Your task to perform on an android device: empty trash in the gmail app Image 0: 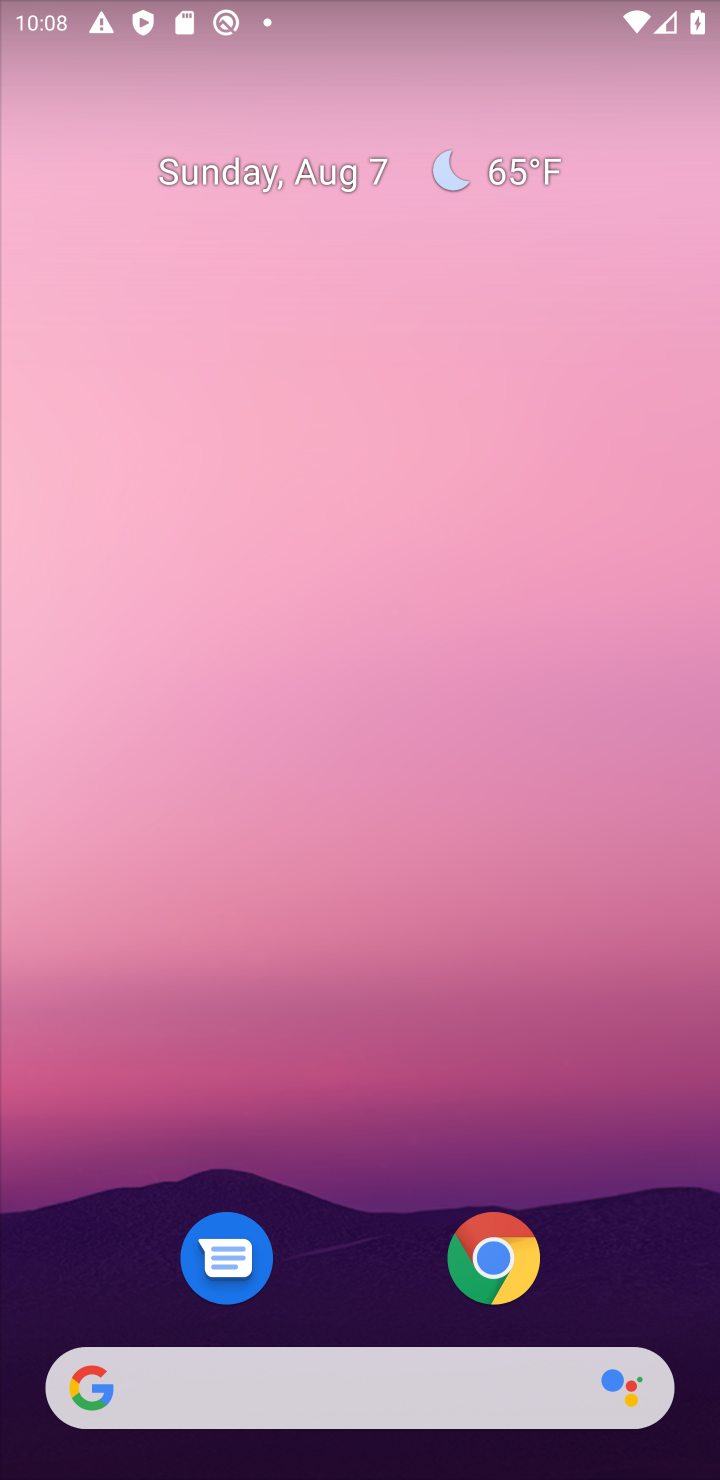
Step 0: drag from (346, 1257) to (229, 0)
Your task to perform on an android device: empty trash in the gmail app Image 1: 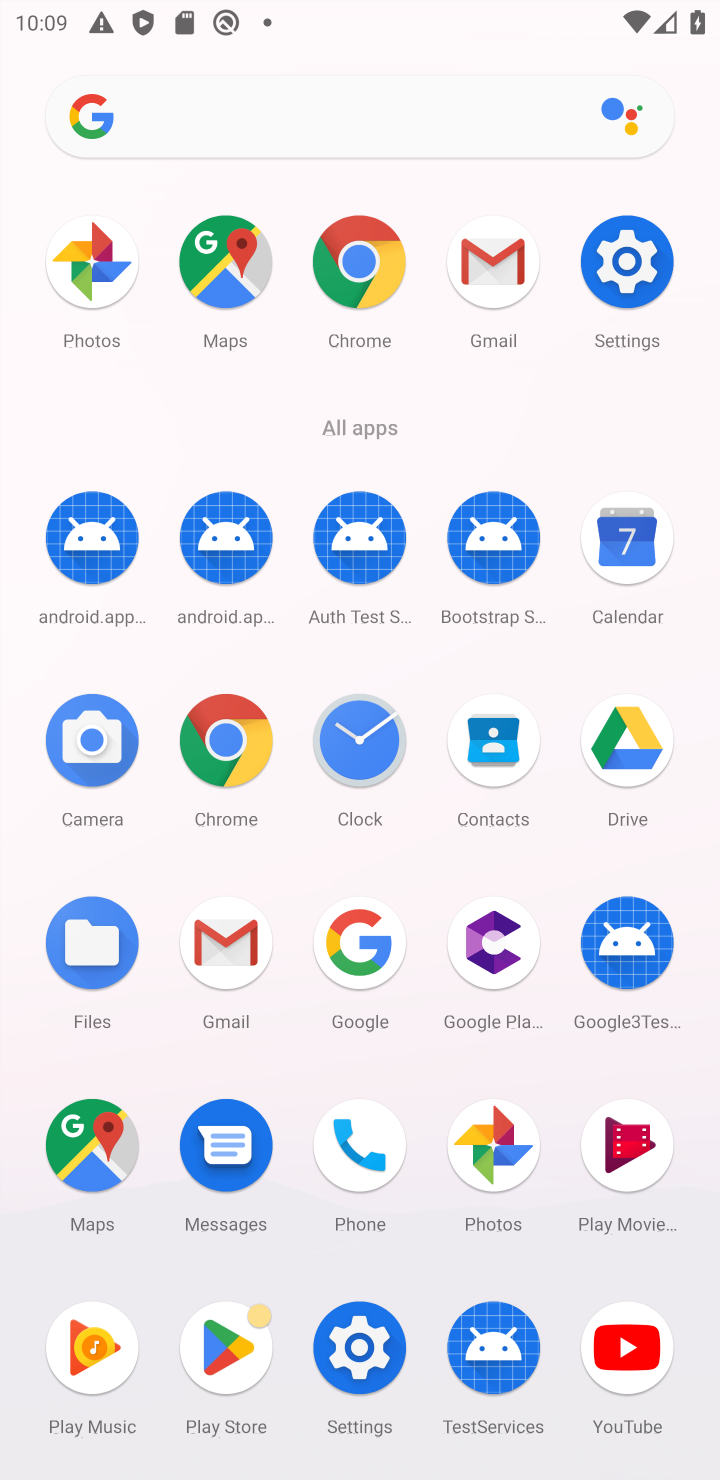
Step 1: click (254, 962)
Your task to perform on an android device: empty trash in the gmail app Image 2: 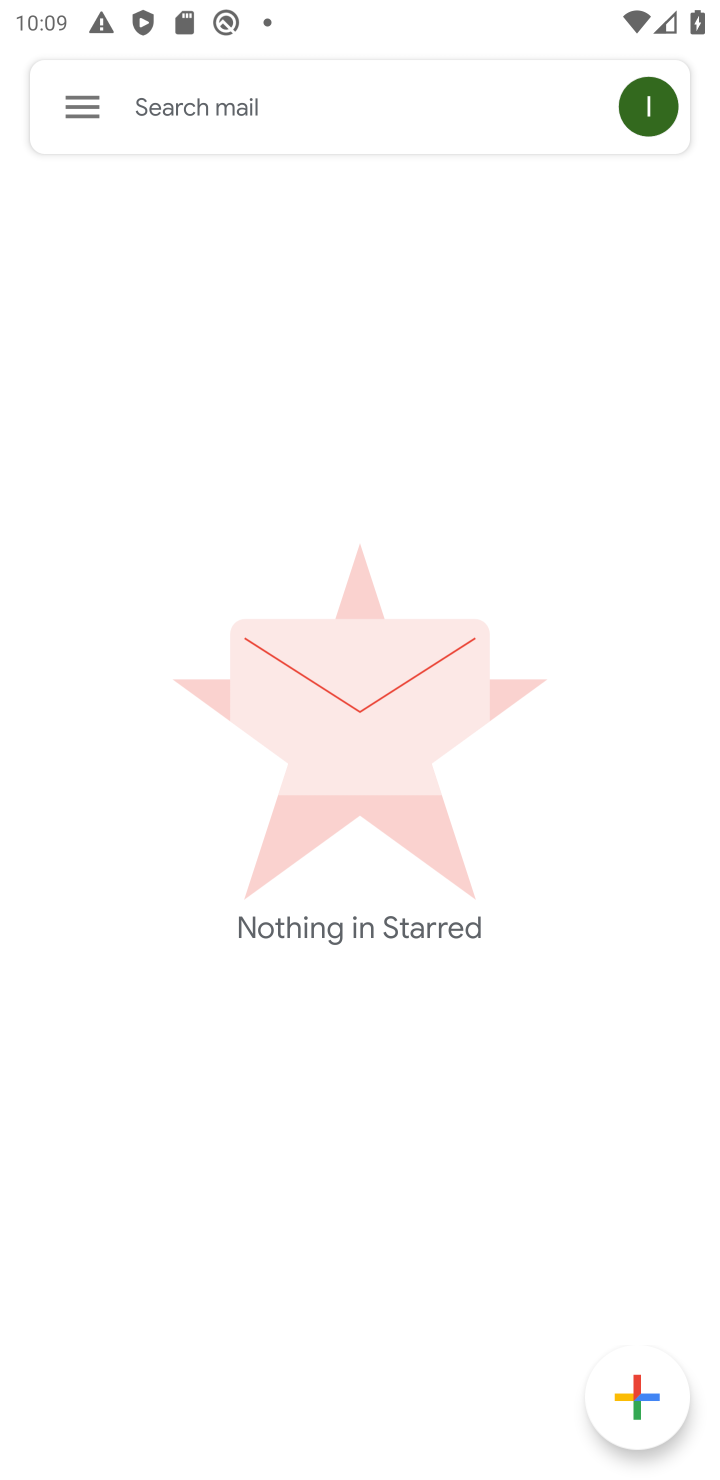
Step 2: click (77, 111)
Your task to perform on an android device: empty trash in the gmail app Image 3: 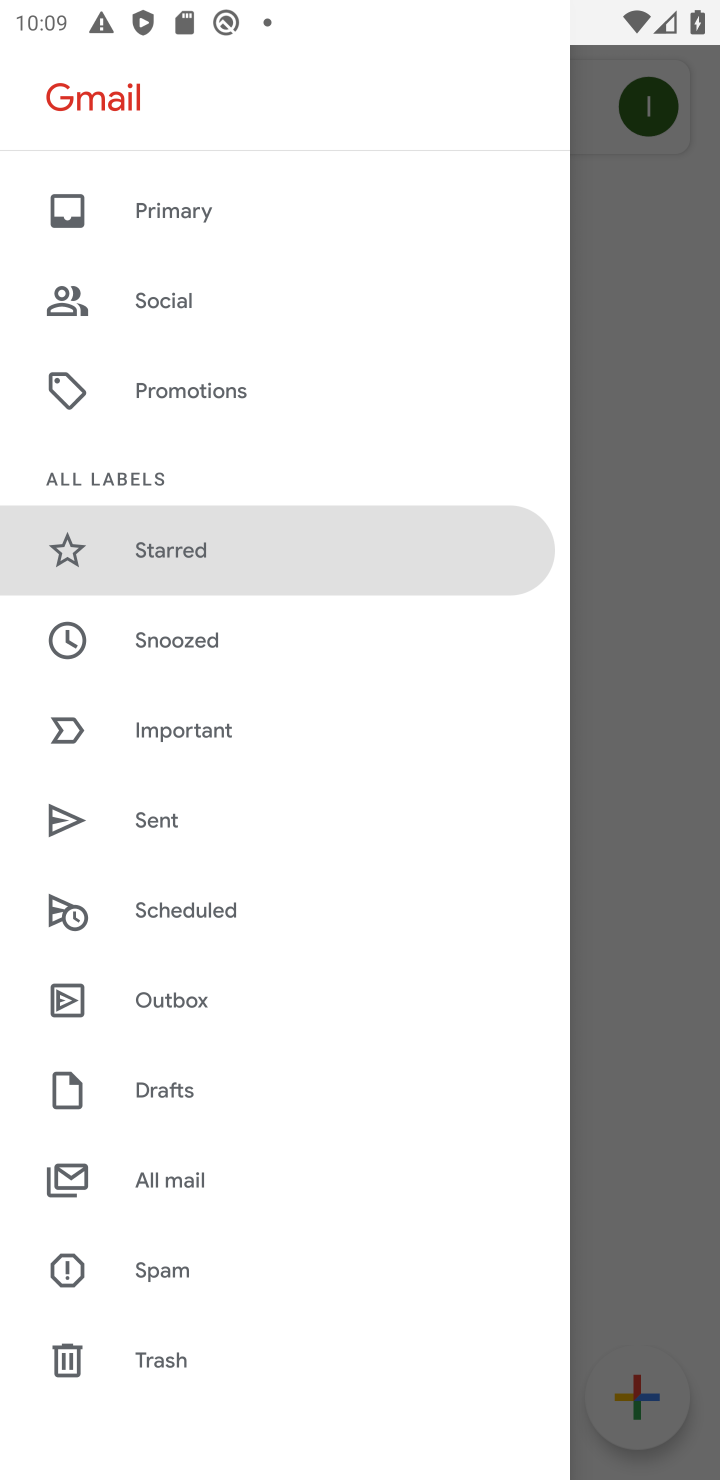
Step 3: click (51, 1372)
Your task to perform on an android device: empty trash in the gmail app Image 4: 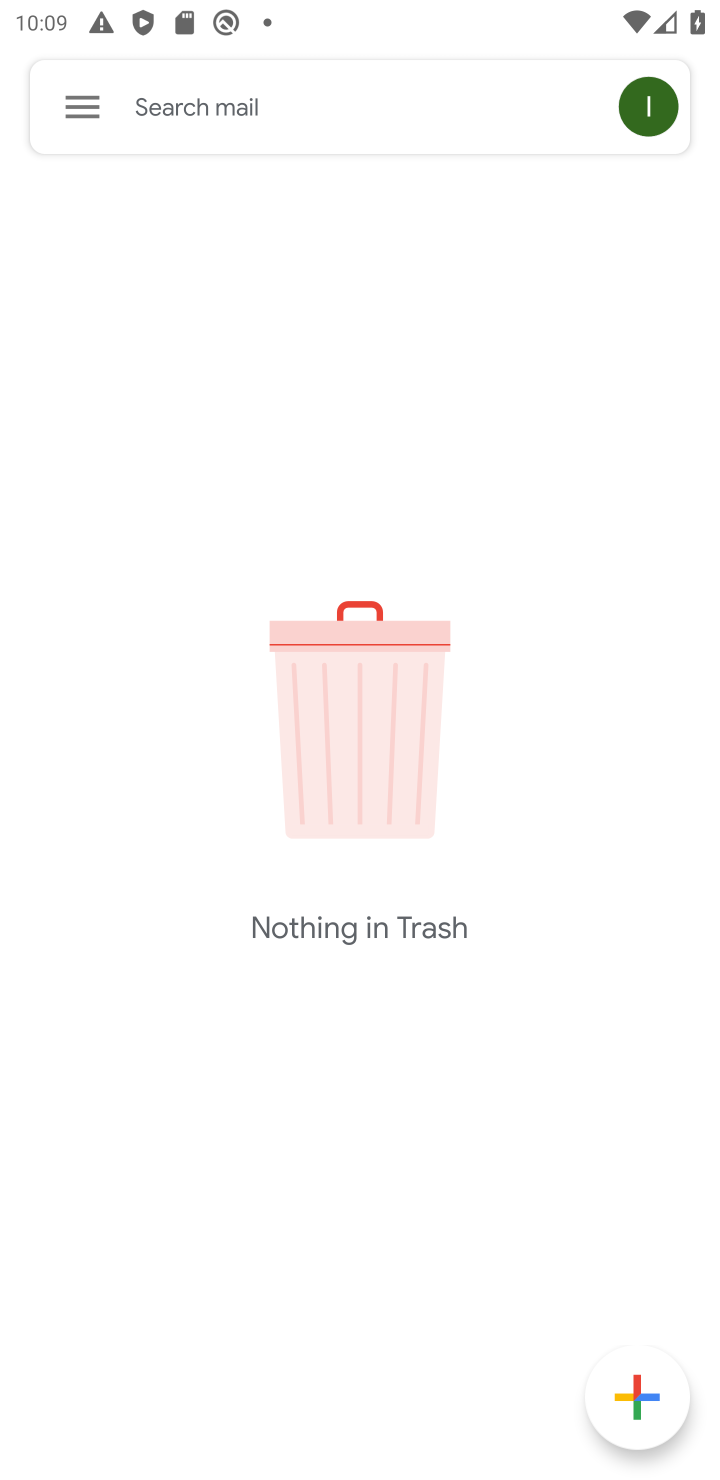
Step 4: task complete